Your task to perform on an android device: Open the calendar and show me this week's events? Image 0: 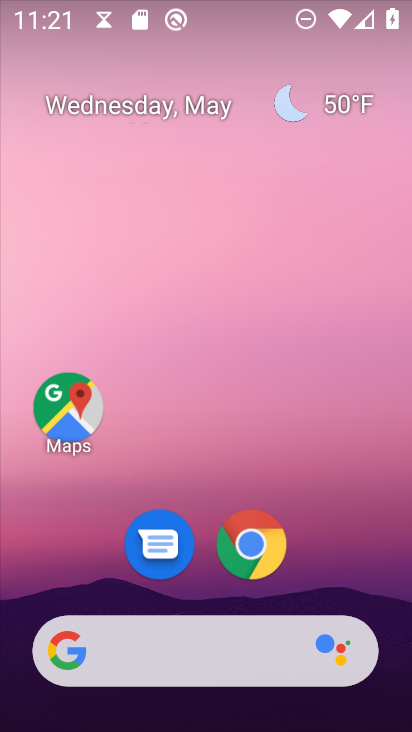
Step 0: click (247, 552)
Your task to perform on an android device: Open the calendar and show me this week's events? Image 1: 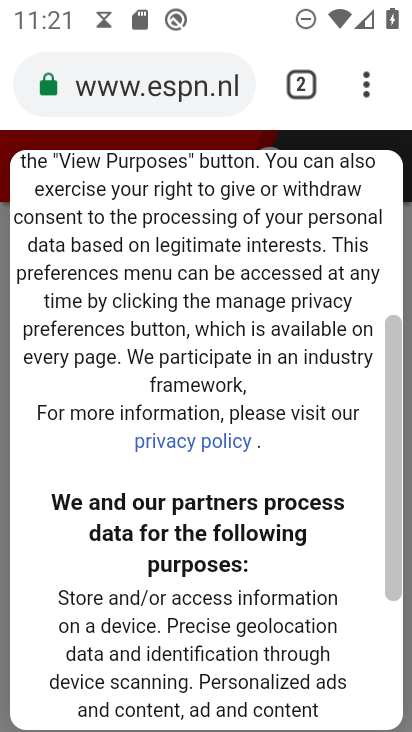
Step 1: click (348, 81)
Your task to perform on an android device: Open the calendar and show me this week's events? Image 2: 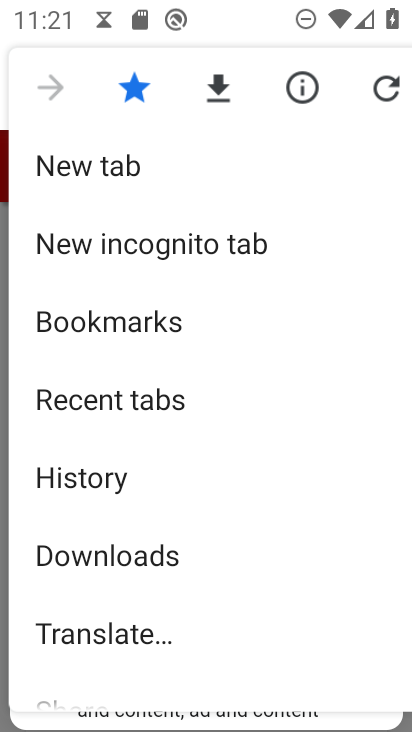
Step 2: click (83, 188)
Your task to perform on an android device: Open the calendar and show me this week's events? Image 3: 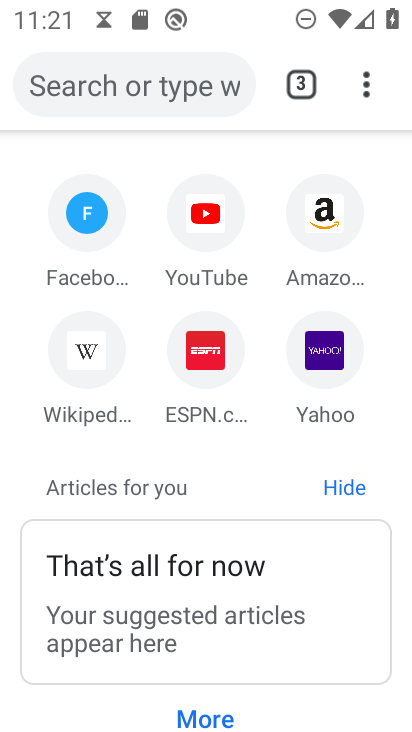
Step 3: click (315, 369)
Your task to perform on an android device: Open the calendar and show me this week's events? Image 4: 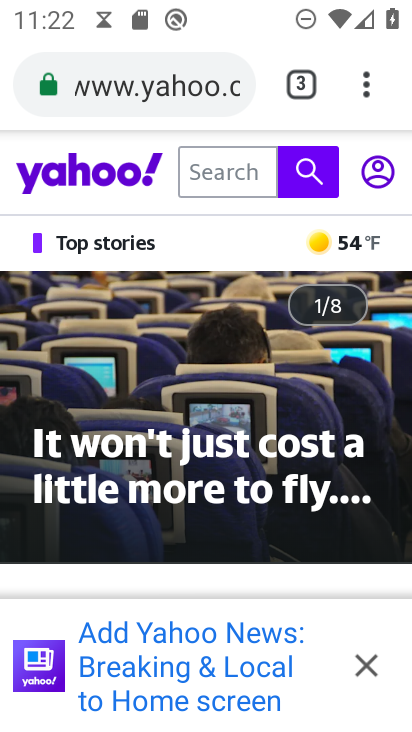
Step 4: press home button
Your task to perform on an android device: Open the calendar and show me this week's events? Image 5: 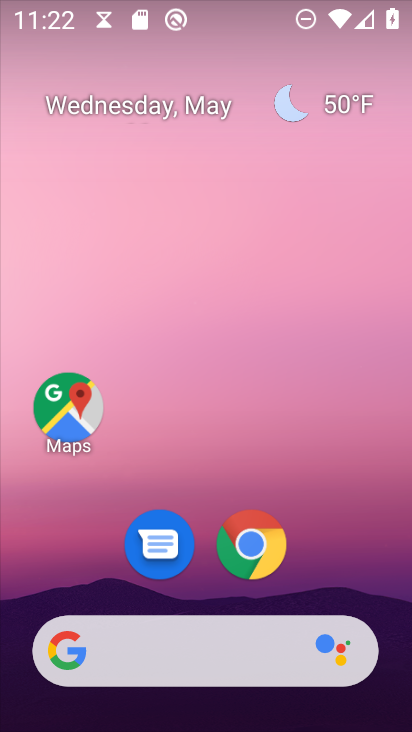
Step 5: click (128, 121)
Your task to perform on an android device: Open the calendar and show me this week's events? Image 6: 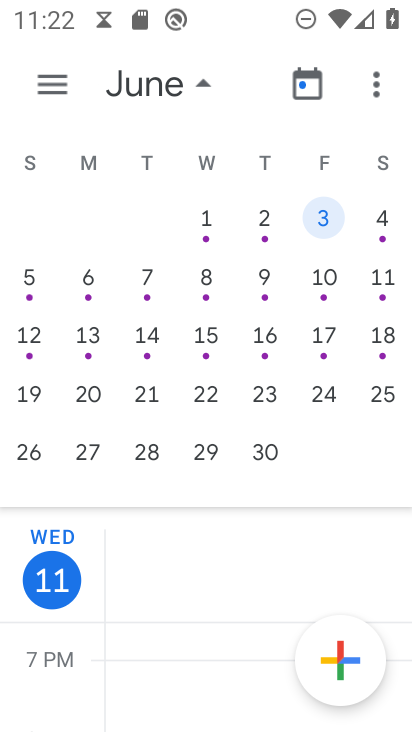
Step 6: click (170, 84)
Your task to perform on an android device: Open the calendar and show me this week's events? Image 7: 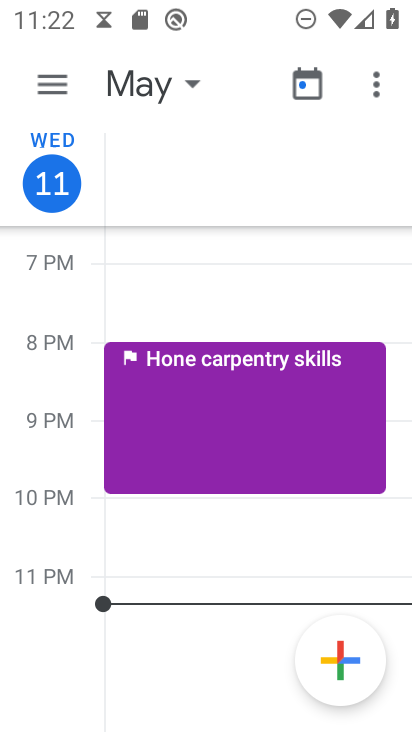
Step 7: click (131, 104)
Your task to perform on an android device: Open the calendar and show me this week's events? Image 8: 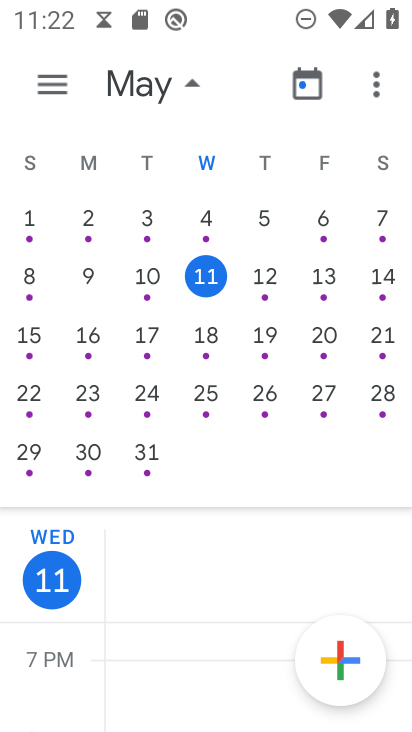
Step 8: click (338, 284)
Your task to perform on an android device: Open the calendar and show me this week's events? Image 9: 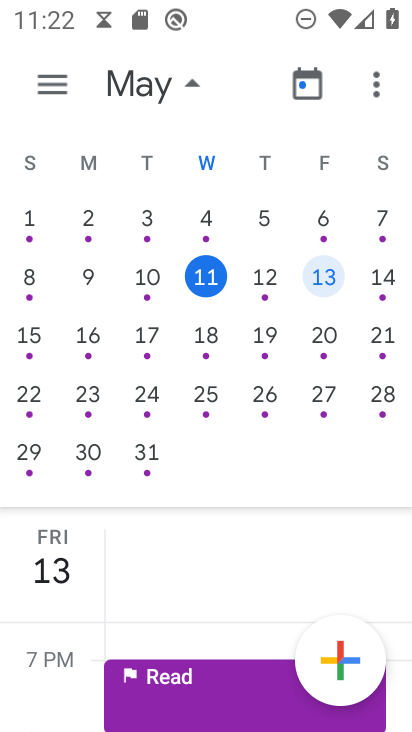
Step 9: task complete